Your task to perform on an android device: turn off smart reply in the gmail app Image 0: 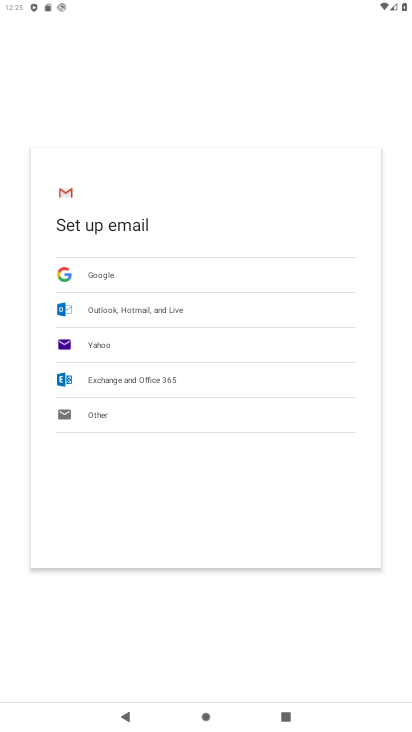
Step 0: press home button
Your task to perform on an android device: turn off smart reply in the gmail app Image 1: 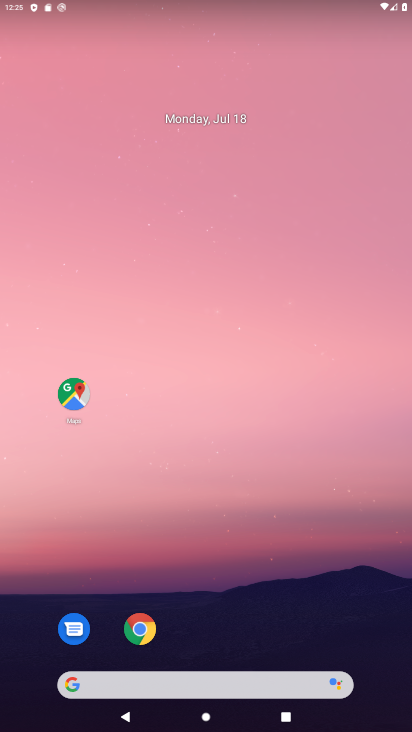
Step 1: drag from (285, 583) to (120, 7)
Your task to perform on an android device: turn off smart reply in the gmail app Image 2: 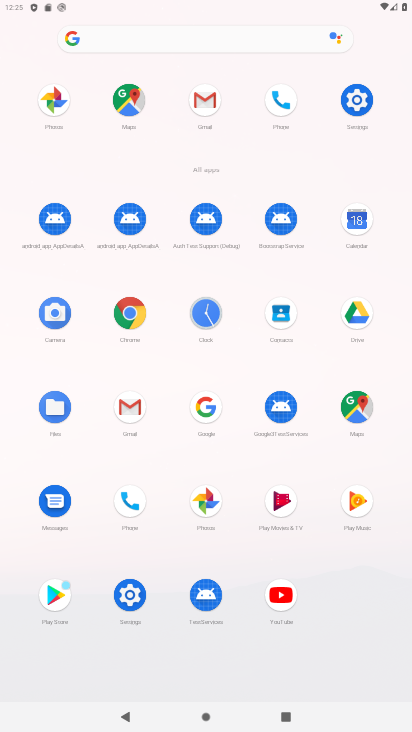
Step 2: click (199, 103)
Your task to perform on an android device: turn off smart reply in the gmail app Image 3: 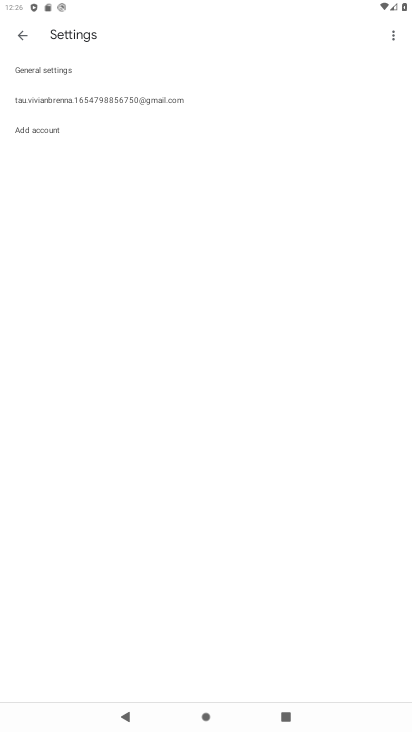
Step 3: click (55, 98)
Your task to perform on an android device: turn off smart reply in the gmail app Image 4: 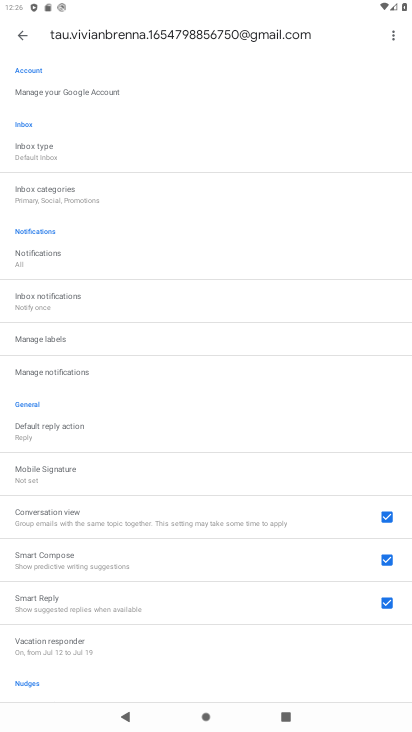
Step 4: click (387, 604)
Your task to perform on an android device: turn off smart reply in the gmail app Image 5: 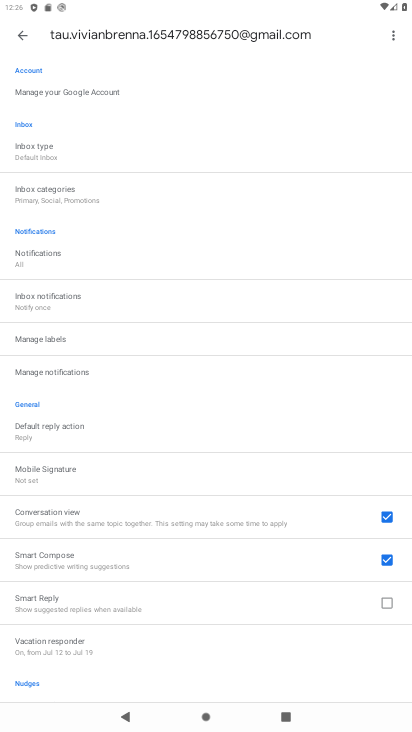
Step 5: task complete